Your task to perform on an android device: allow notifications from all sites in the chrome app Image 0: 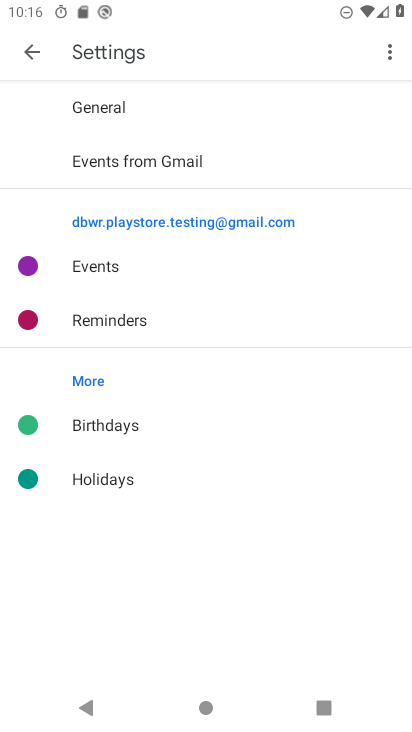
Step 0: press home button
Your task to perform on an android device: allow notifications from all sites in the chrome app Image 1: 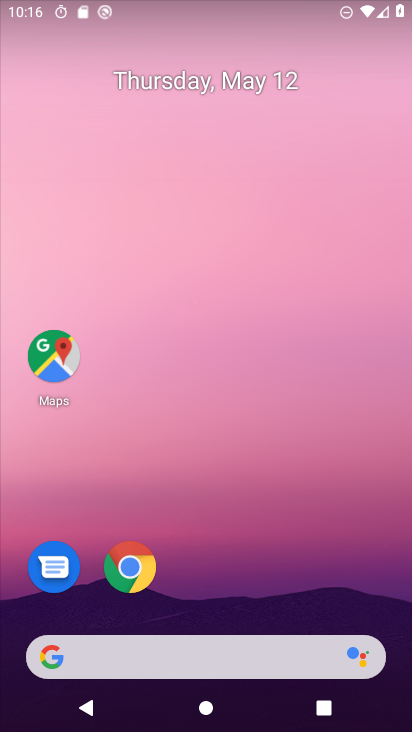
Step 1: drag from (206, 629) to (335, 70)
Your task to perform on an android device: allow notifications from all sites in the chrome app Image 2: 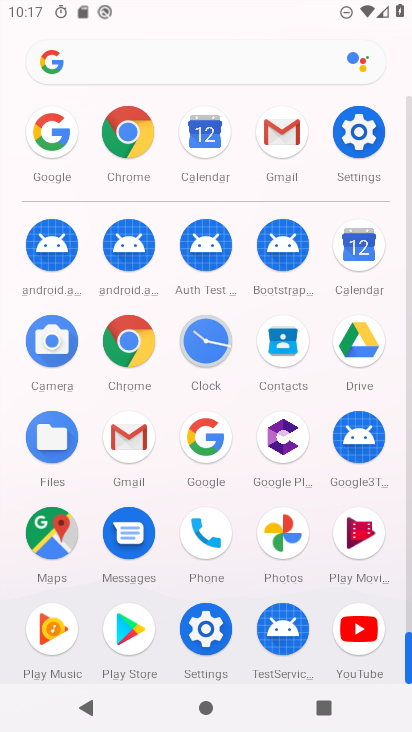
Step 2: click (113, 144)
Your task to perform on an android device: allow notifications from all sites in the chrome app Image 3: 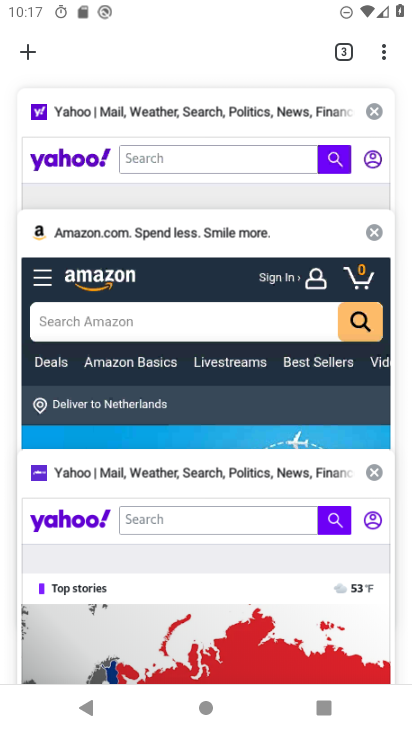
Step 3: click (384, 59)
Your task to perform on an android device: allow notifications from all sites in the chrome app Image 4: 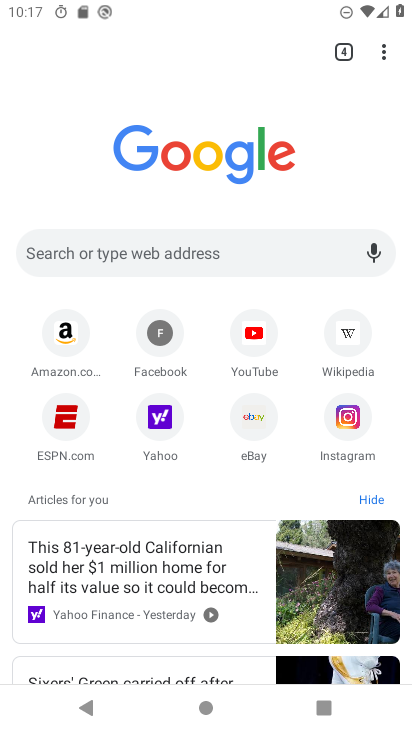
Step 4: click (390, 53)
Your task to perform on an android device: allow notifications from all sites in the chrome app Image 5: 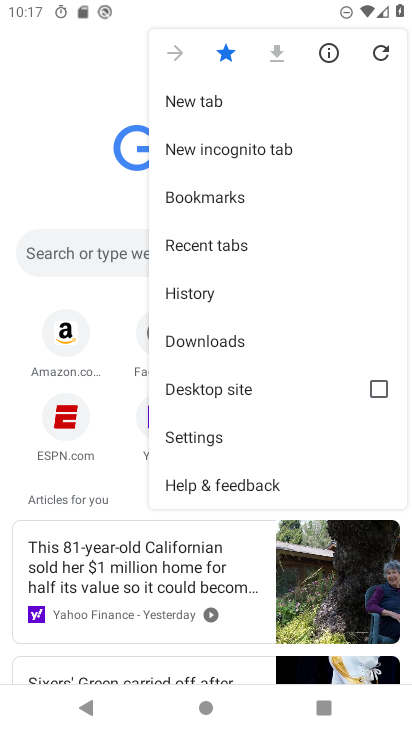
Step 5: click (210, 430)
Your task to perform on an android device: allow notifications from all sites in the chrome app Image 6: 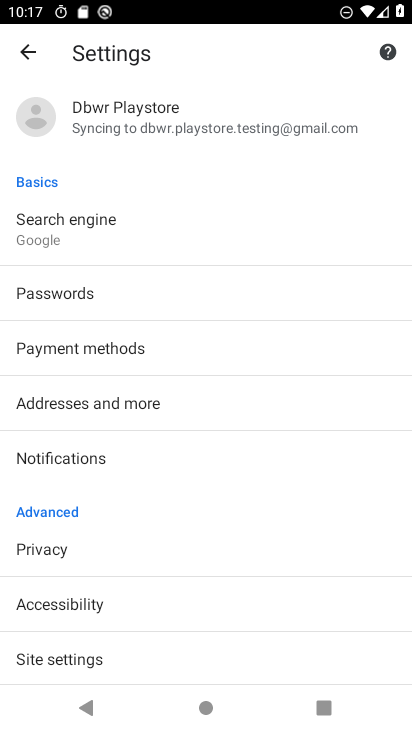
Step 6: drag from (120, 619) to (156, 496)
Your task to perform on an android device: allow notifications from all sites in the chrome app Image 7: 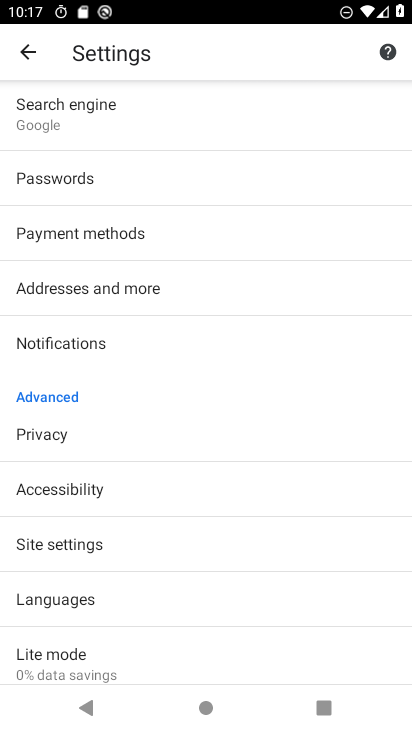
Step 7: click (124, 342)
Your task to perform on an android device: allow notifications from all sites in the chrome app Image 8: 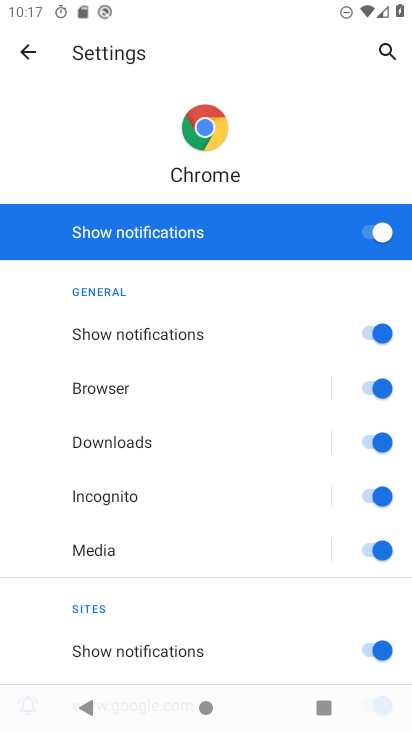
Step 8: task complete